Your task to perform on an android device: turn on notifications settings in the gmail app Image 0: 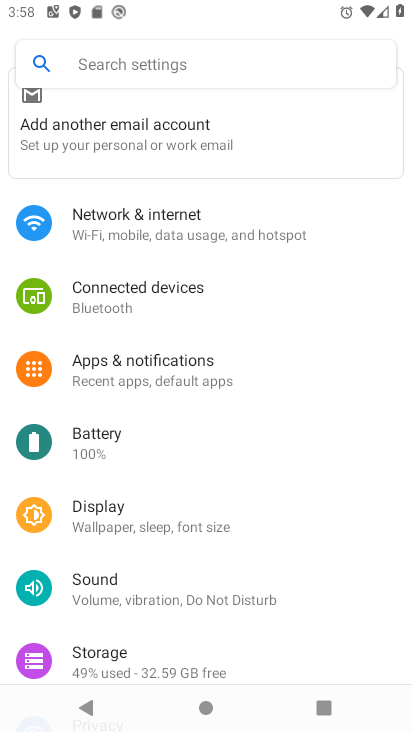
Step 0: press home button
Your task to perform on an android device: turn on notifications settings in the gmail app Image 1: 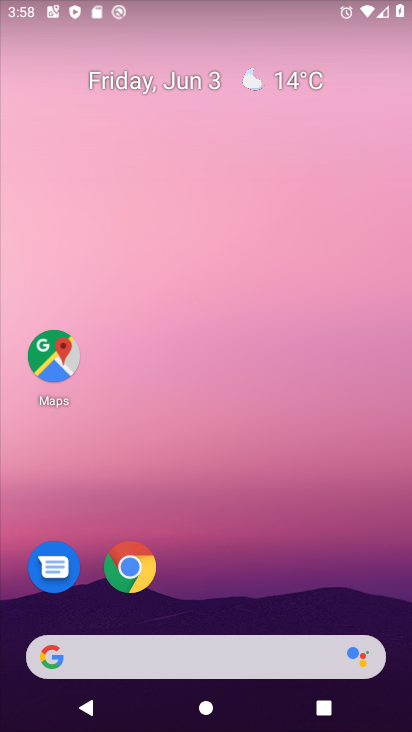
Step 1: drag from (259, 681) to (223, 6)
Your task to perform on an android device: turn on notifications settings in the gmail app Image 2: 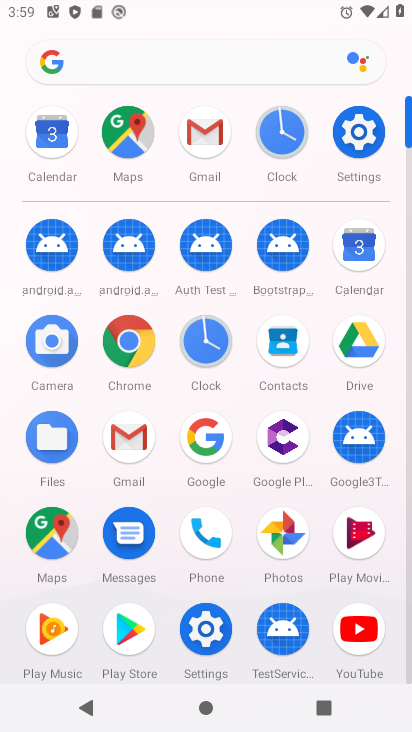
Step 2: click (132, 433)
Your task to perform on an android device: turn on notifications settings in the gmail app Image 3: 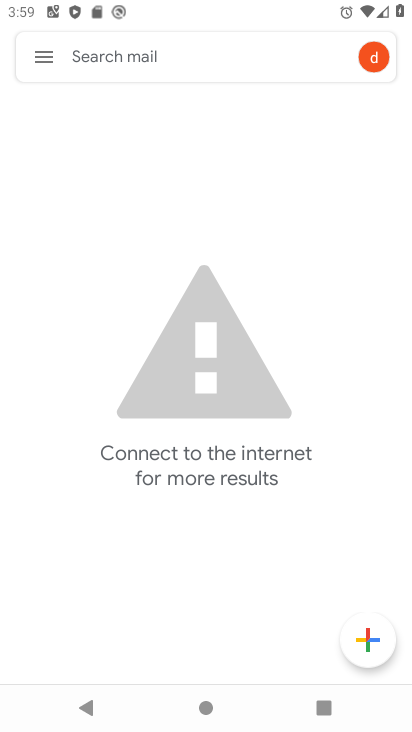
Step 3: click (31, 54)
Your task to perform on an android device: turn on notifications settings in the gmail app Image 4: 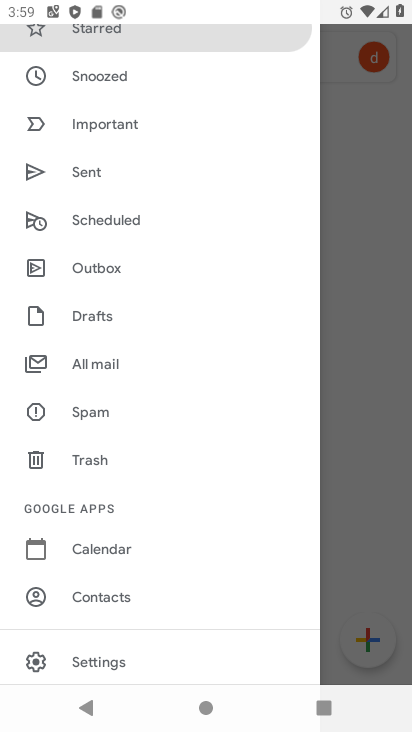
Step 4: click (106, 658)
Your task to perform on an android device: turn on notifications settings in the gmail app Image 5: 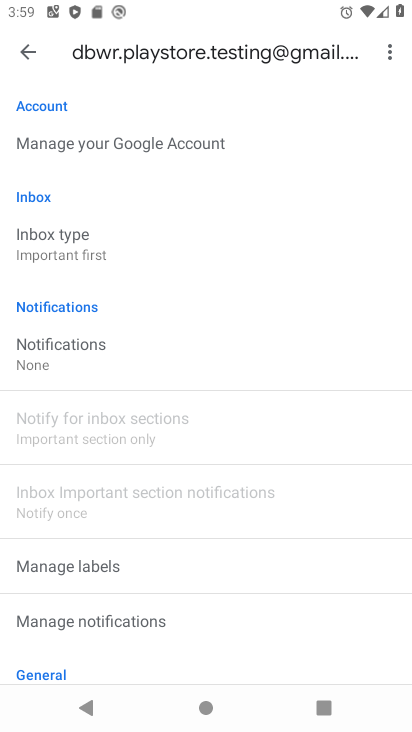
Step 5: click (80, 352)
Your task to perform on an android device: turn on notifications settings in the gmail app Image 6: 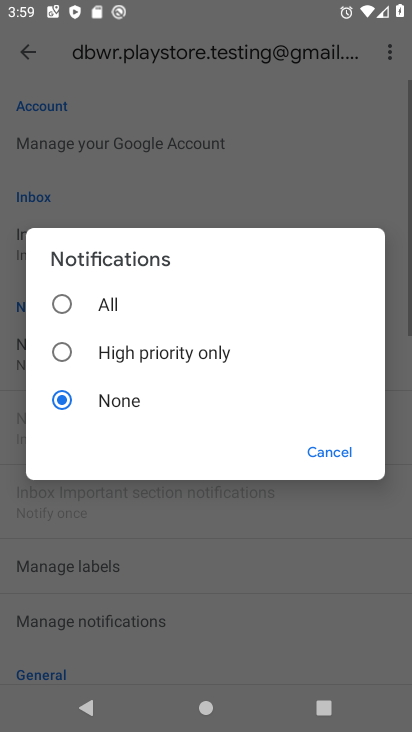
Step 6: click (116, 300)
Your task to perform on an android device: turn on notifications settings in the gmail app Image 7: 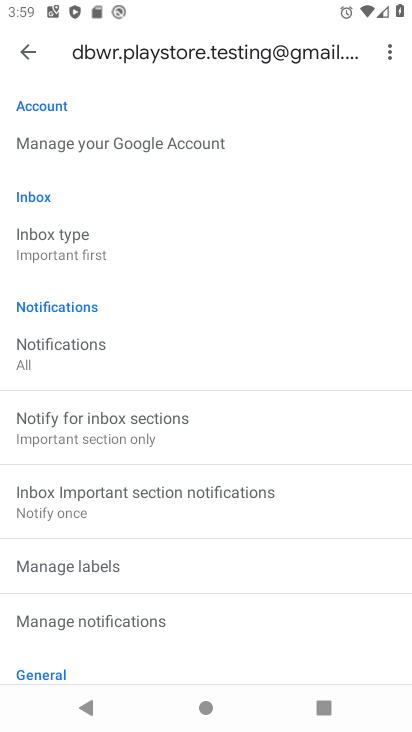
Step 7: drag from (249, 574) to (246, 472)
Your task to perform on an android device: turn on notifications settings in the gmail app Image 8: 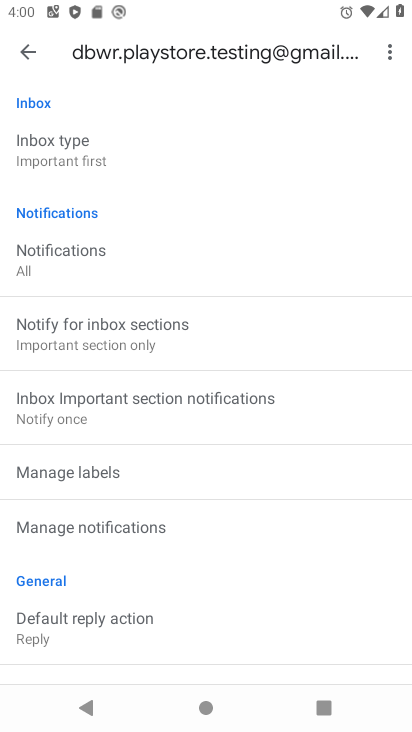
Step 8: click (67, 243)
Your task to perform on an android device: turn on notifications settings in the gmail app Image 9: 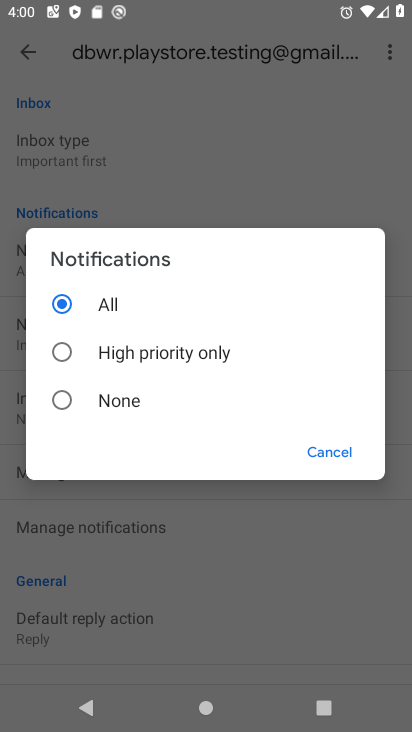
Step 9: task complete